Your task to perform on an android device: star an email in the gmail app Image 0: 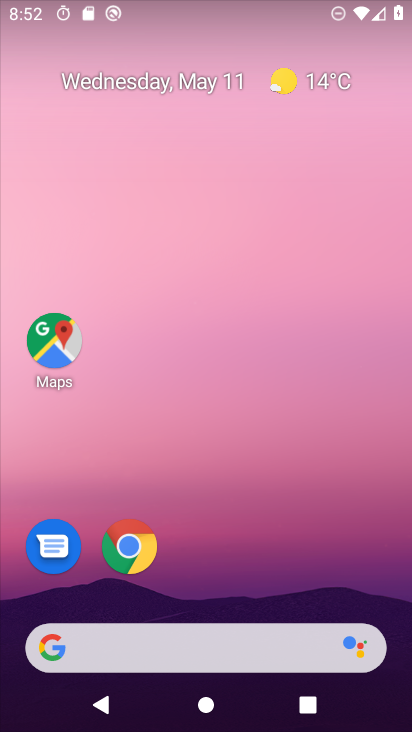
Step 0: drag from (223, 619) to (267, 116)
Your task to perform on an android device: star an email in the gmail app Image 1: 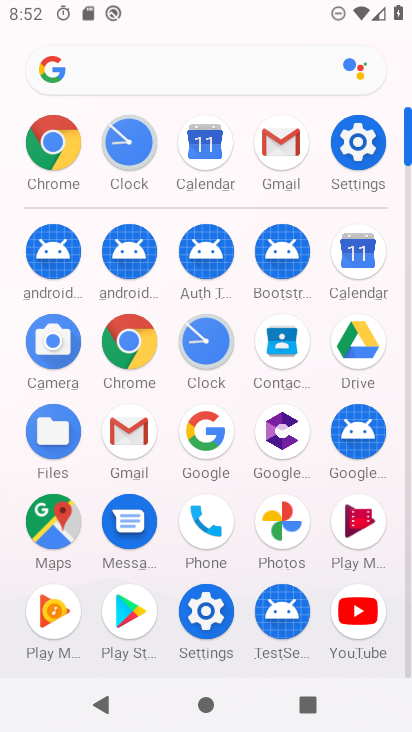
Step 1: click (134, 457)
Your task to perform on an android device: star an email in the gmail app Image 2: 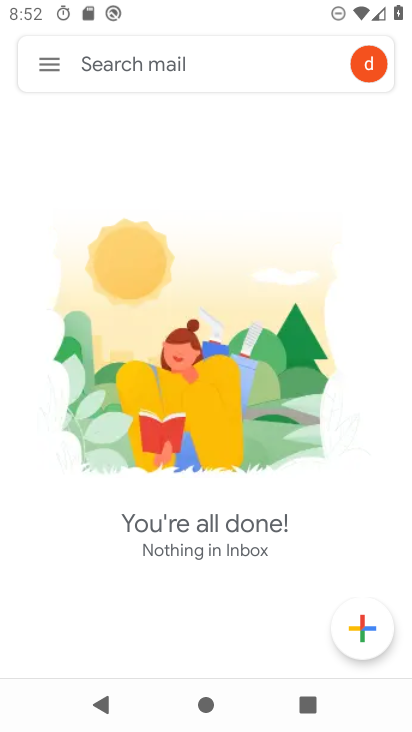
Step 2: click (39, 71)
Your task to perform on an android device: star an email in the gmail app Image 3: 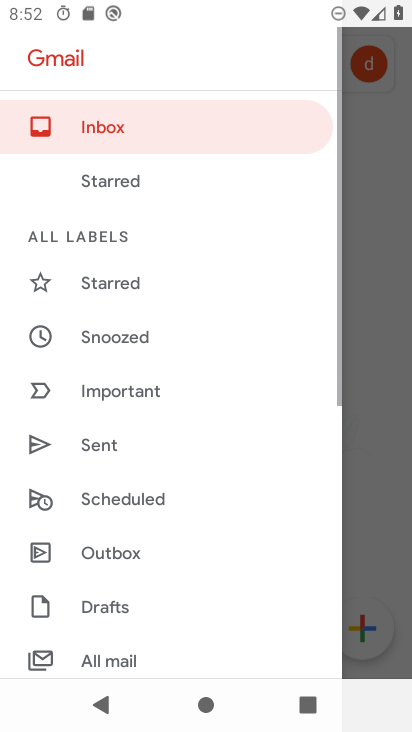
Step 3: drag from (167, 540) to (58, 148)
Your task to perform on an android device: star an email in the gmail app Image 4: 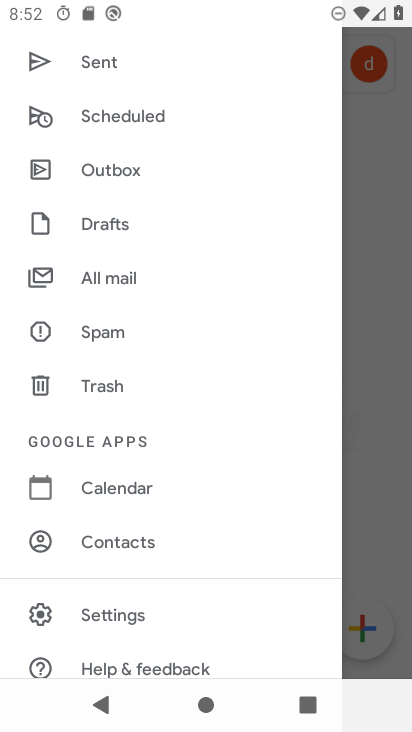
Step 4: click (117, 292)
Your task to perform on an android device: star an email in the gmail app Image 5: 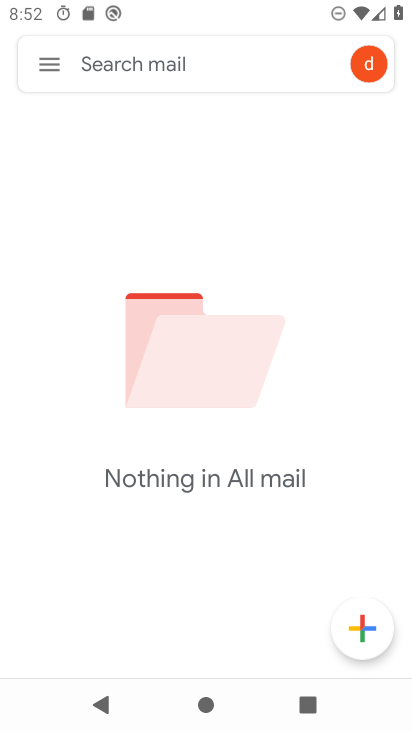
Step 5: task complete